Your task to perform on an android device: turn on priority inbox in the gmail app Image 0: 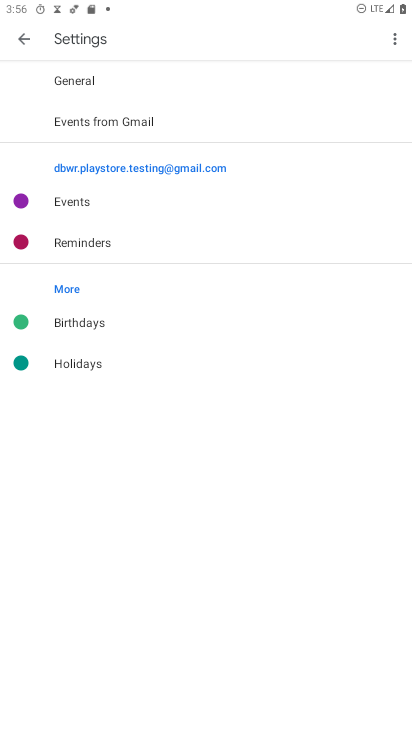
Step 0: press home button
Your task to perform on an android device: turn on priority inbox in the gmail app Image 1: 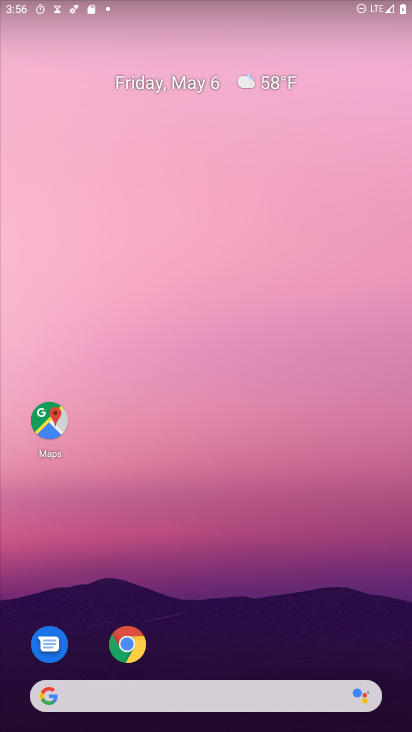
Step 1: drag from (214, 722) to (198, 325)
Your task to perform on an android device: turn on priority inbox in the gmail app Image 2: 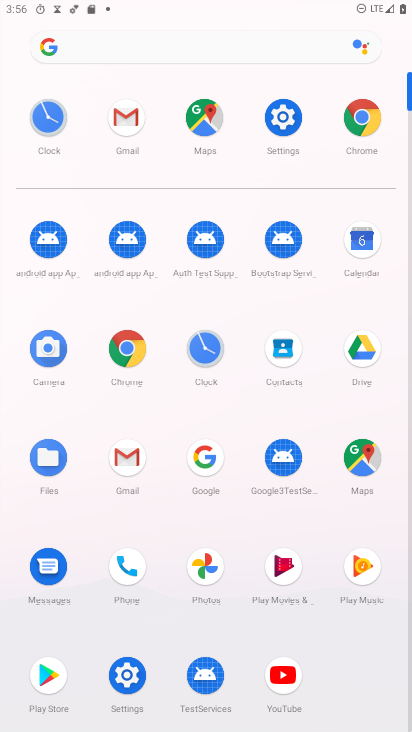
Step 2: click (131, 459)
Your task to perform on an android device: turn on priority inbox in the gmail app Image 3: 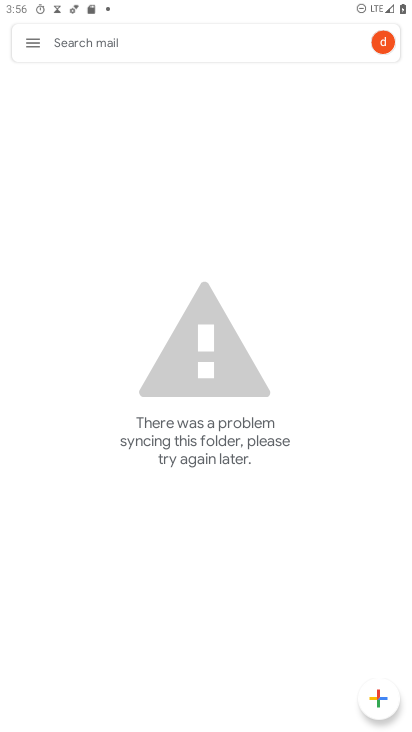
Step 3: click (34, 48)
Your task to perform on an android device: turn on priority inbox in the gmail app Image 4: 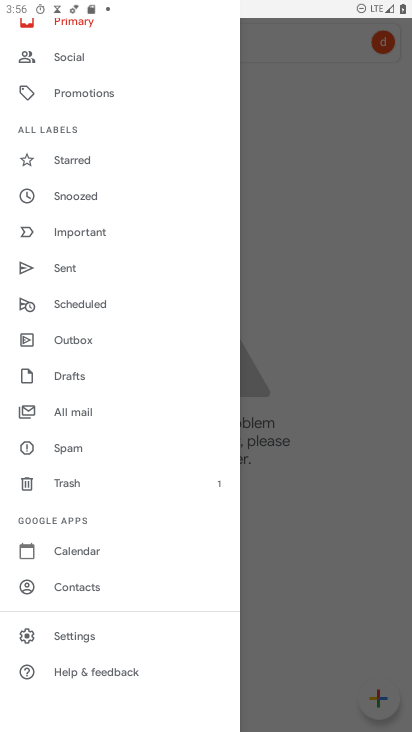
Step 4: click (82, 634)
Your task to perform on an android device: turn on priority inbox in the gmail app Image 5: 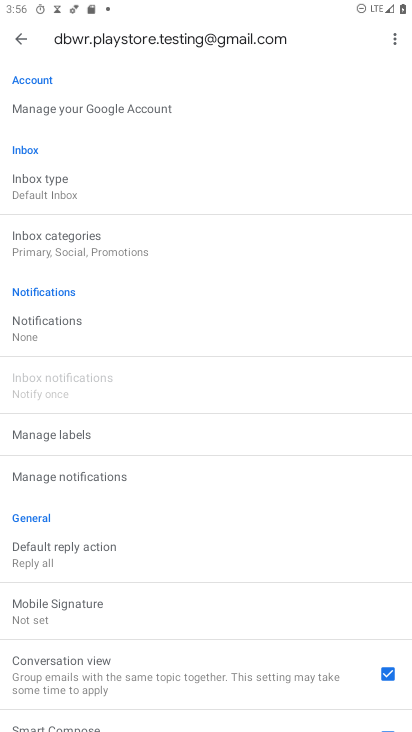
Step 5: click (42, 186)
Your task to perform on an android device: turn on priority inbox in the gmail app Image 6: 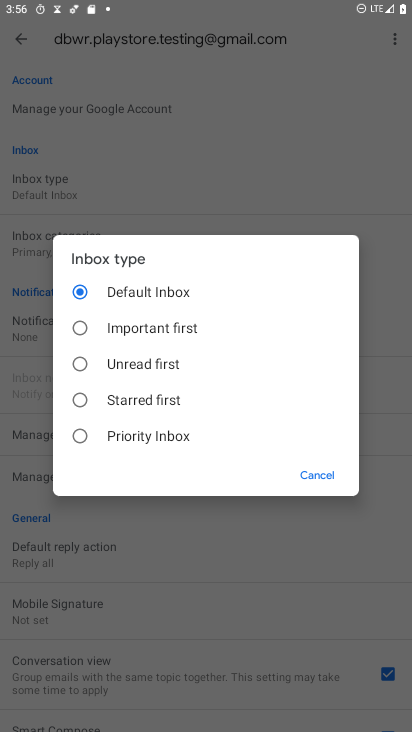
Step 6: click (78, 435)
Your task to perform on an android device: turn on priority inbox in the gmail app Image 7: 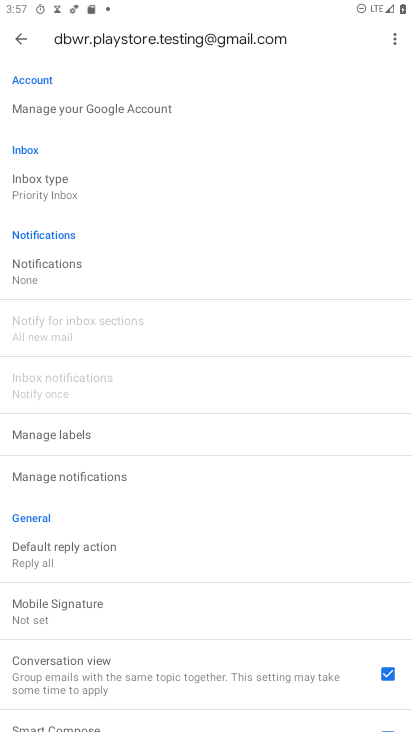
Step 7: task complete